Your task to perform on an android device: Show me recent news Image 0: 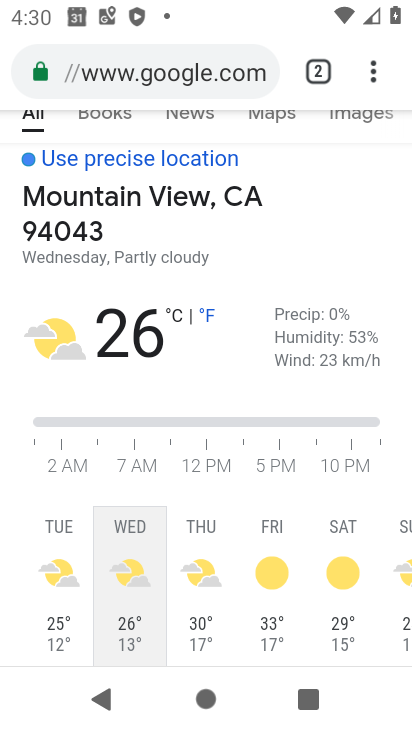
Step 0: click (180, 62)
Your task to perform on an android device: Show me recent news Image 1: 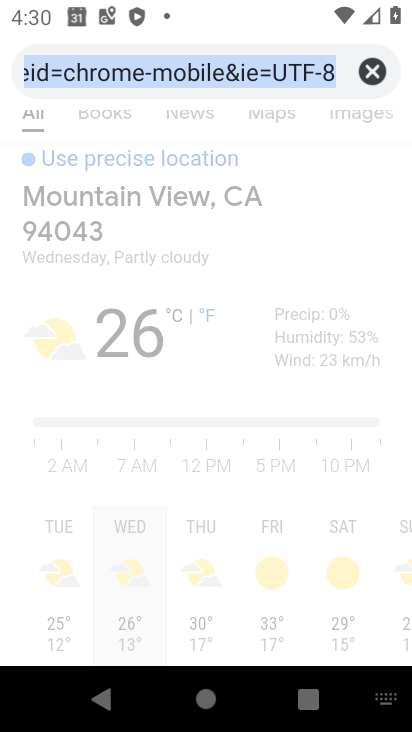
Step 1: click (384, 69)
Your task to perform on an android device: Show me recent news Image 2: 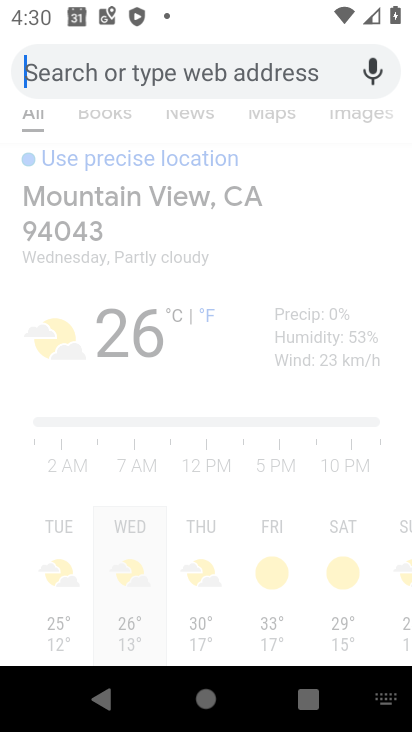
Step 2: type "Show me recent news"
Your task to perform on an android device: Show me recent news Image 3: 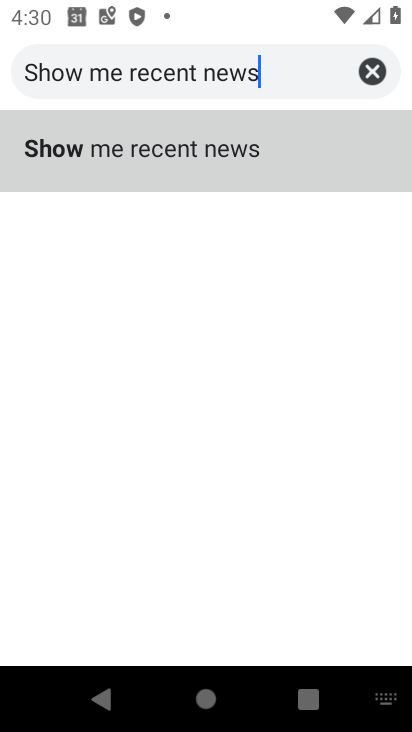
Step 3: type ""
Your task to perform on an android device: Show me recent news Image 4: 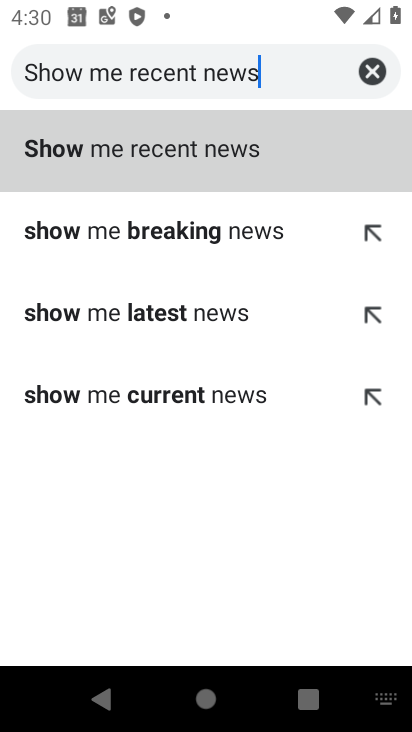
Step 4: click (227, 153)
Your task to perform on an android device: Show me recent news Image 5: 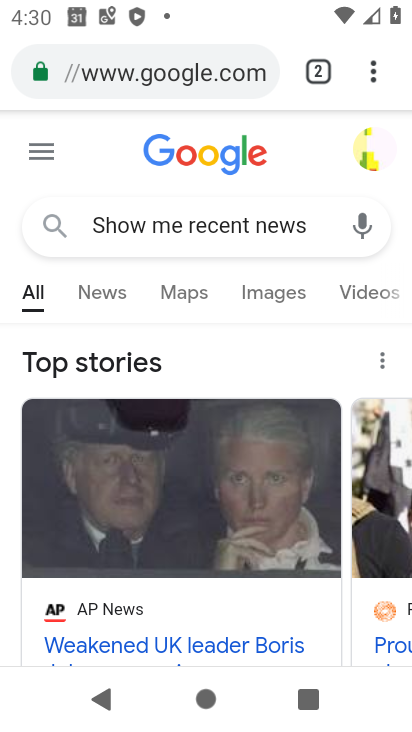
Step 5: task complete